Your task to perform on an android device: move a message to another label in the gmail app Image 0: 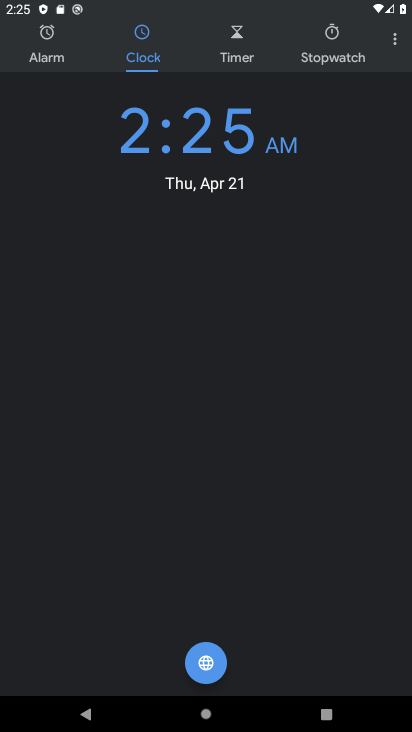
Step 0: press home button
Your task to perform on an android device: move a message to another label in the gmail app Image 1: 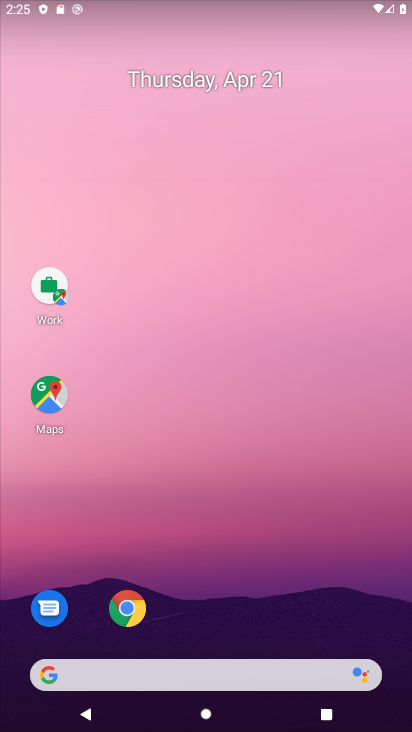
Step 1: drag from (220, 621) to (217, 174)
Your task to perform on an android device: move a message to another label in the gmail app Image 2: 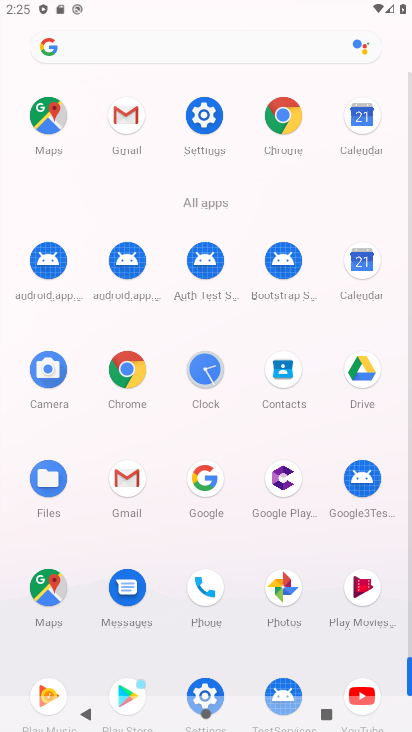
Step 2: click (127, 117)
Your task to perform on an android device: move a message to another label in the gmail app Image 3: 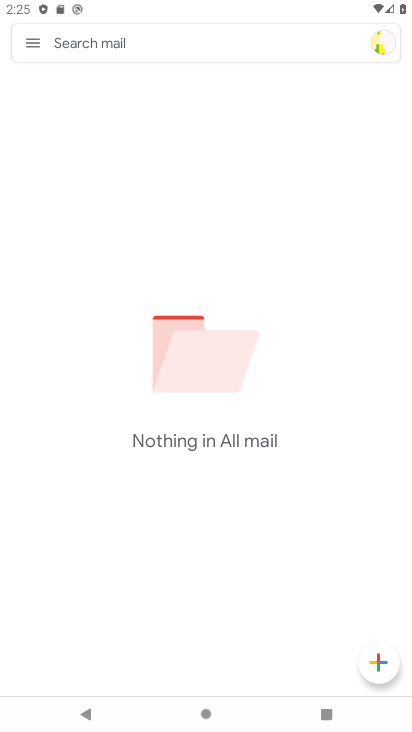
Step 3: click (34, 43)
Your task to perform on an android device: move a message to another label in the gmail app Image 4: 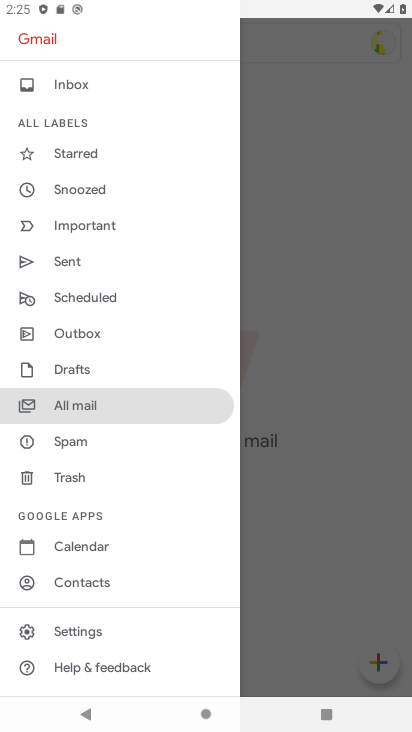
Step 4: drag from (110, 212) to (68, 494)
Your task to perform on an android device: move a message to another label in the gmail app Image 5: 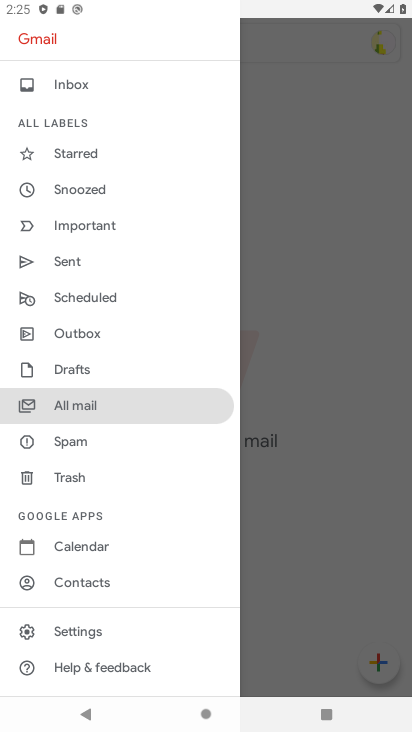
Step 5: drag from (97, 234) to (70, 618)
Your task to perform on an android device: move a message to another label in the gmail app Image 6: 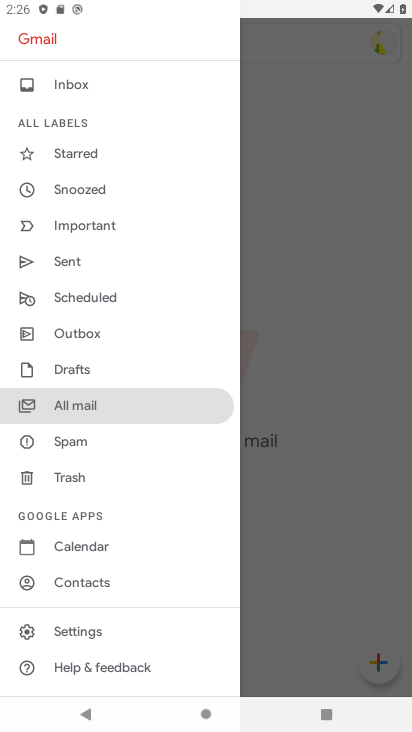
Step 6: drag from (118, 258) to (82, 555)
Your task to perform on an android device: move a message to another label in the gmail app Image 7: 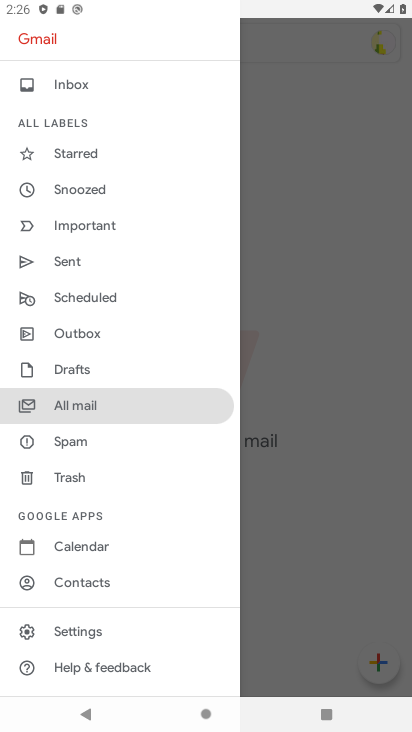
Step 7: click (84, 409)
Your task to perform on an android device: move a message to another label in the gmail app Image 8: 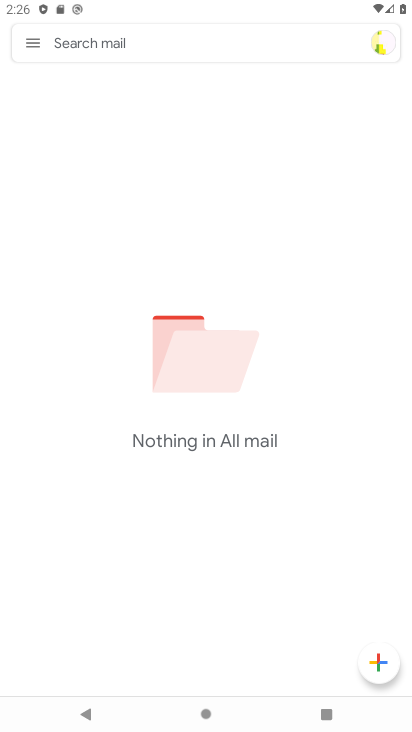
Step 8: task complete